Your task to perform on an android device: Go to Reddit.com Image 0: 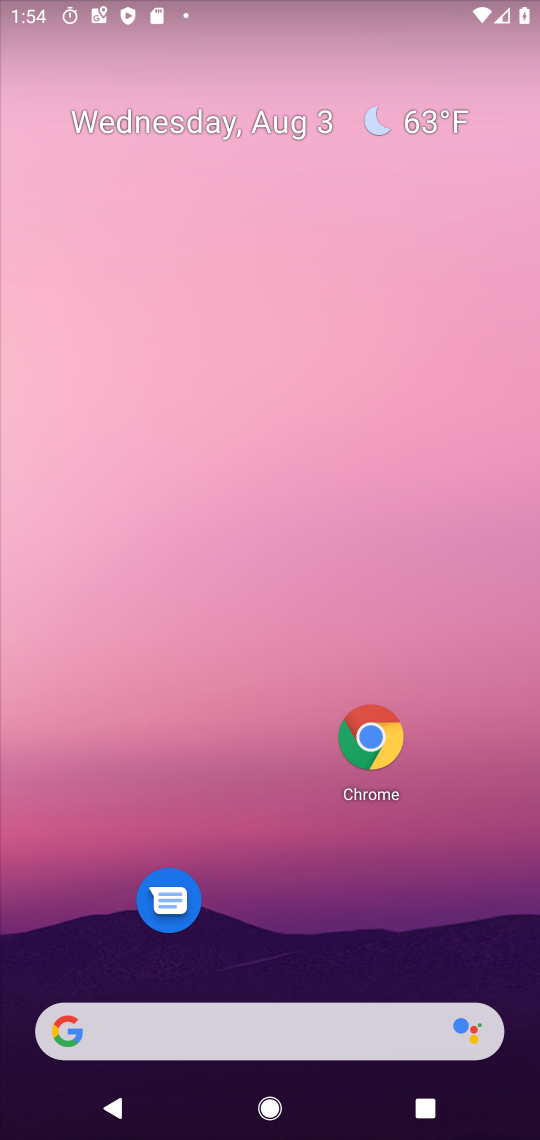
Step 0: drag from (269, 858) to (255, 249)
Your task to perform on an android device: Go to Reddit.com Image 1: 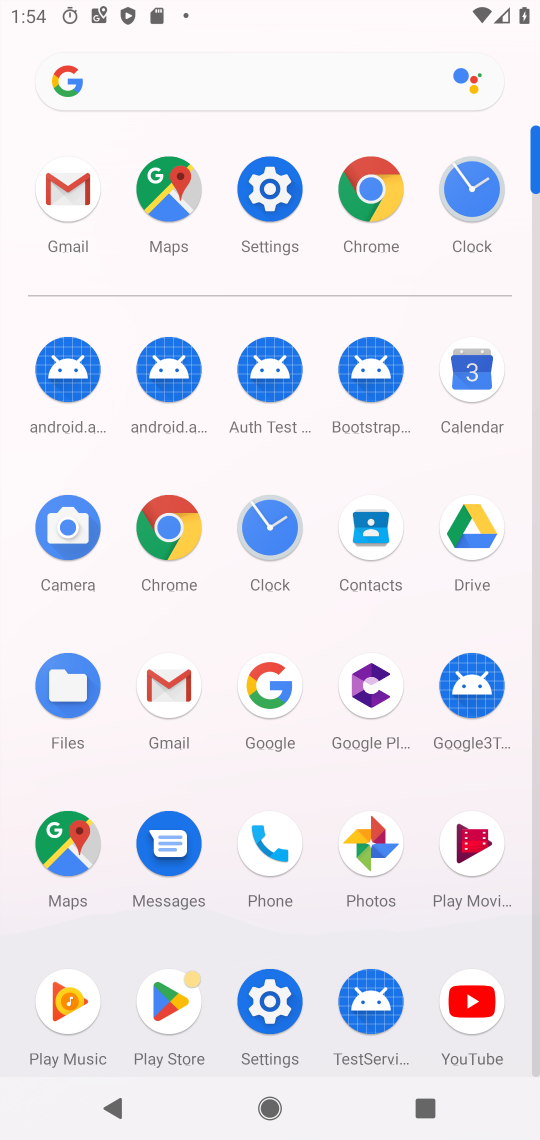
Step 1: click (367, 190)
Your task to perform on an android device: Go to Reddit.com Image 2: 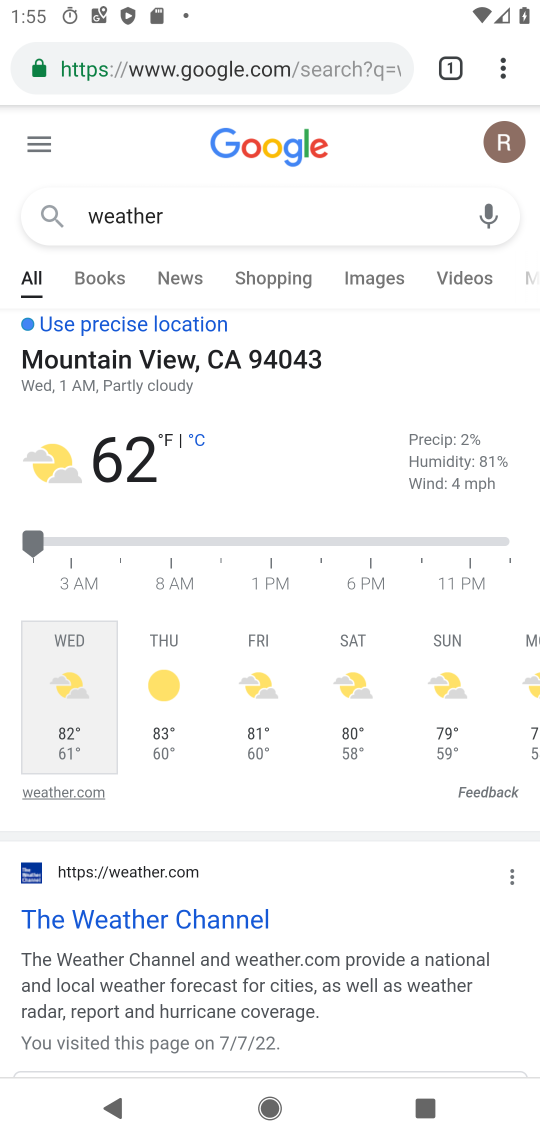
Step 2: click (266, 61)
Your task to perform on an android device: Go to Reddit.com Image 3: 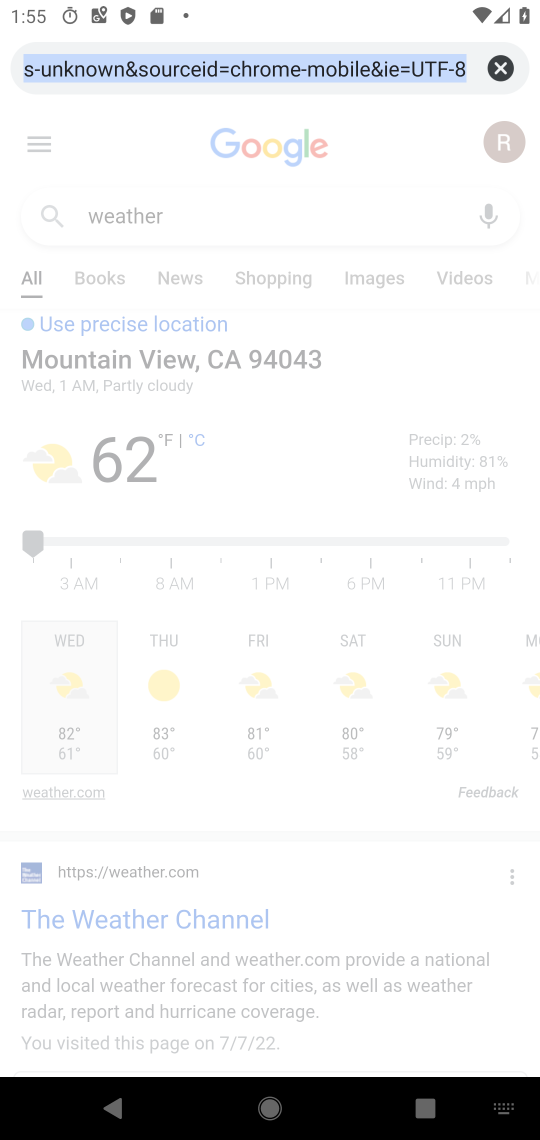
Step 3: type "reddit"
Your task to perform on an android device: Go to Reddit.com Image 4: 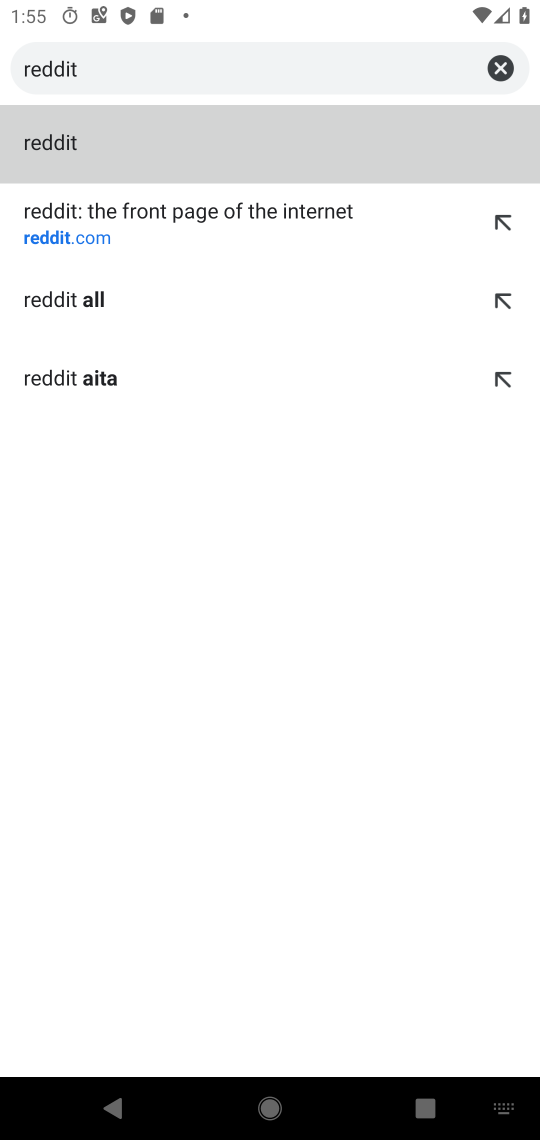
Step 4: click (57, 238)
Your task to perform on an android device: Go to Reddit.com Image 5: 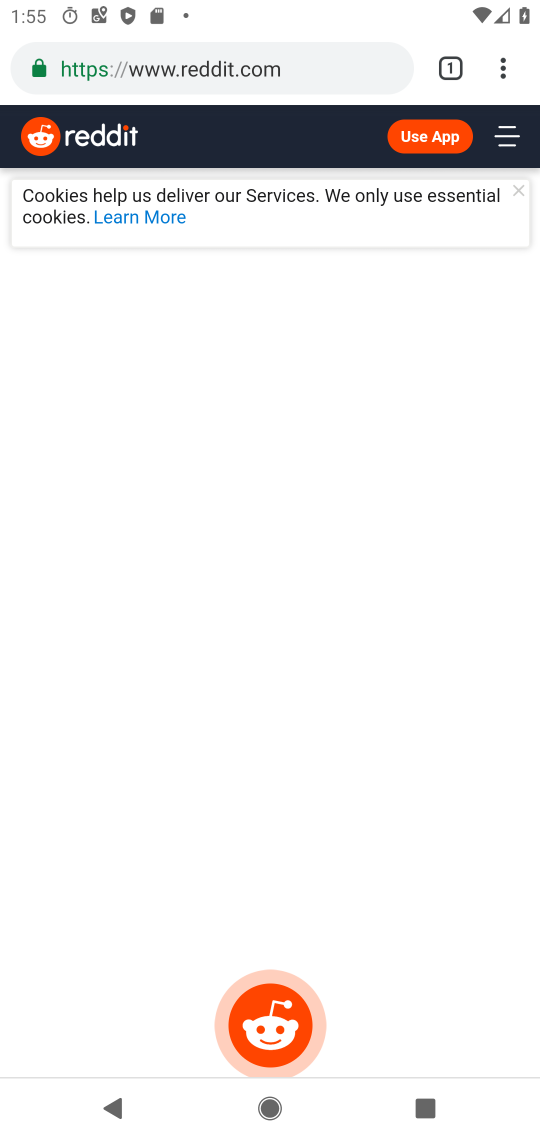
Step 5: task complete